Your task to perform on an android device: Open maps Image 0: 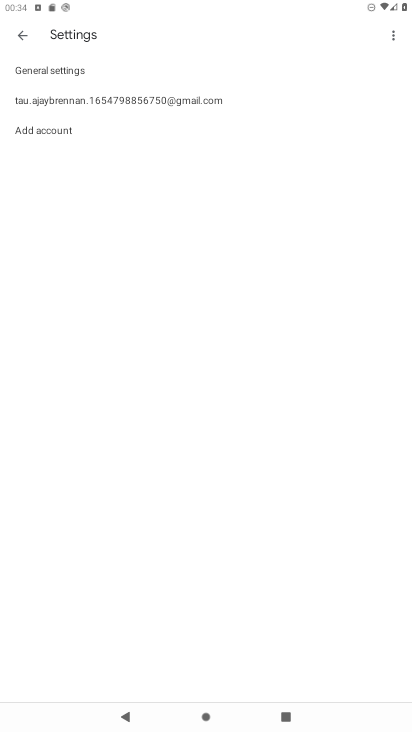
Step 0: press home button
Your task to perform on an android device: Open maps Image 1: 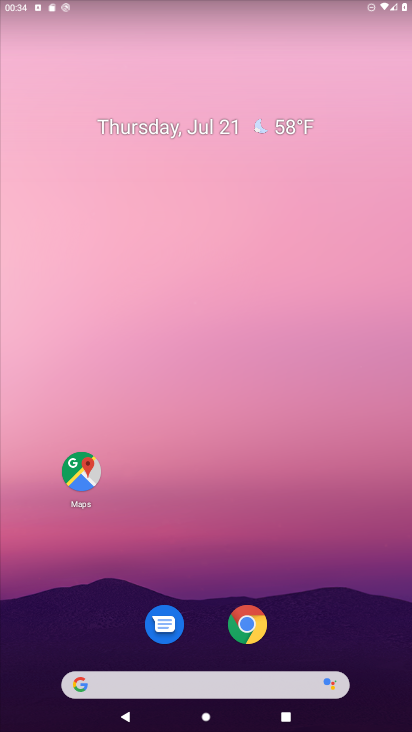
Step 1: click (72, 462)
Your task to perform on an android device: Open maps Image 2: 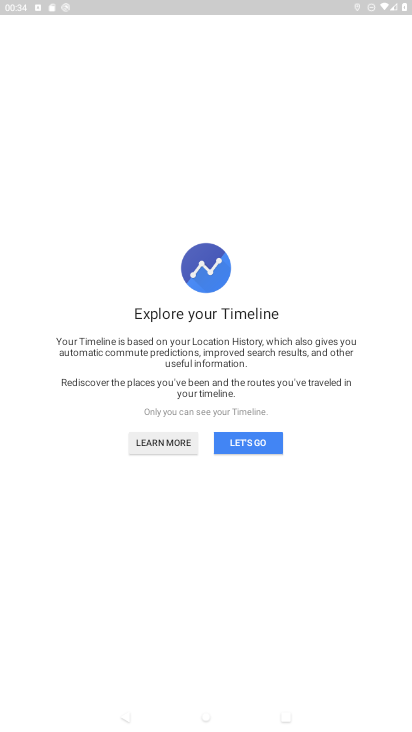
Step 2: click (239, 445)
Your task to perform on an android device: Open maps Image 3: 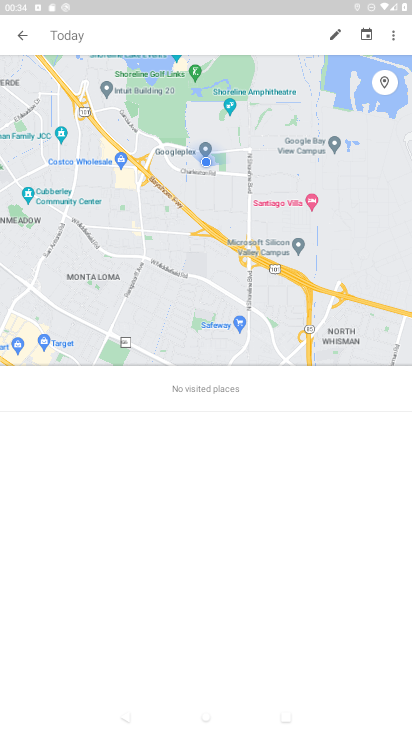
Step 3: task complete